Your task to perform on an android device: Find coffee shops on Maps Image 0: 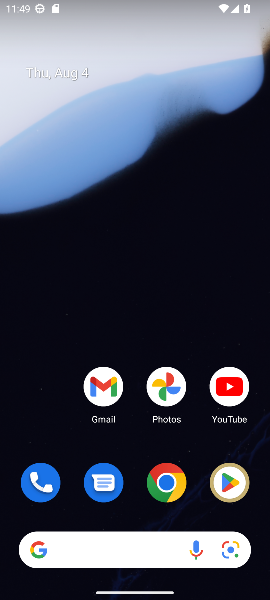
Step 0: drag from (138, 447) to (130, 111)
Your task to perform on an android device: Find coffee shops on Maps Image 1: 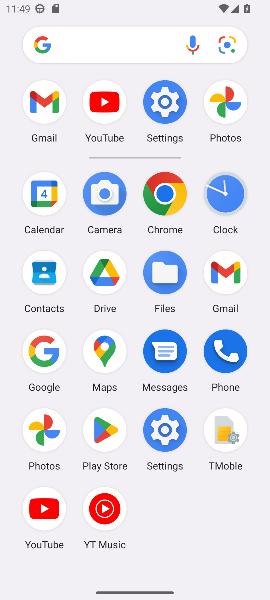
Step 1: click (102, 359)
Your task to perform on an android device: Find coffee shops on Maps Image 2: 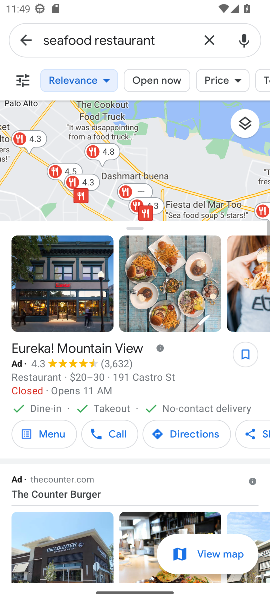
Step 2: click (205, 39)
Your task to perform on an android device: Find coffee shops on Maps Image 3: 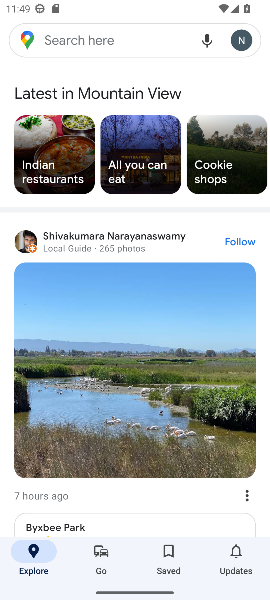
Step 3: type "coffee shops"
Your task to perform on an android device: Find coffee shops on Maps Image 4: 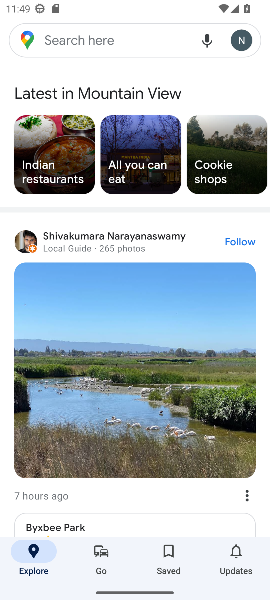
Step 4: type ""
Your task to perform on an android device: Find coffee shops on Maps Image 5: 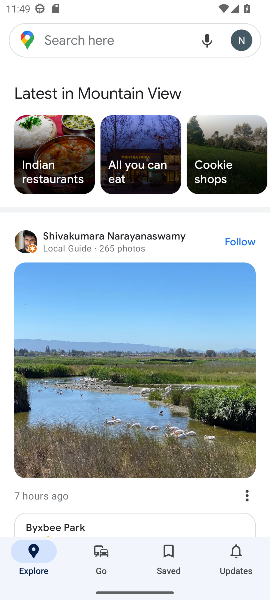
Step 5: click (87, 38)
Your task to perform on an android device: Find coffee shops on Maps Image 6: 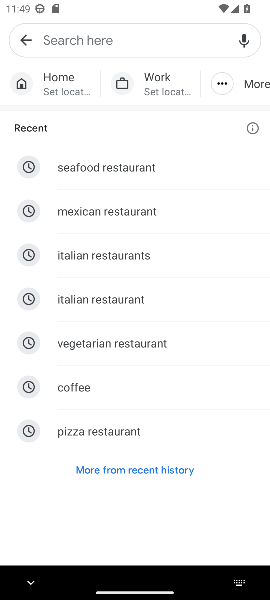
Step 6: type "coffee shops"
Your task to perform on an android device: Find coffee shops on Maps Image 7: 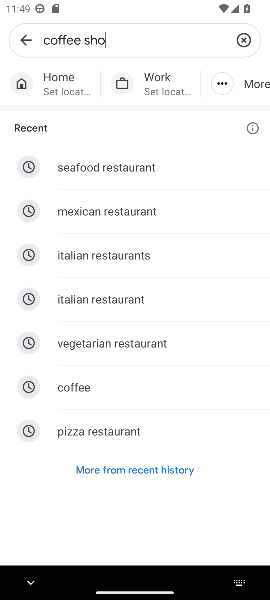
Step 7: type ""
Your task to perform on an android device: Find coffee shops on Maps Image 8: 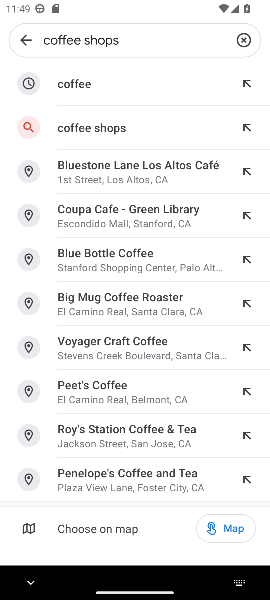
Step 8: click (143, 123)
Your task to perform on an android device: Find coffee shops on Maps Image 9: 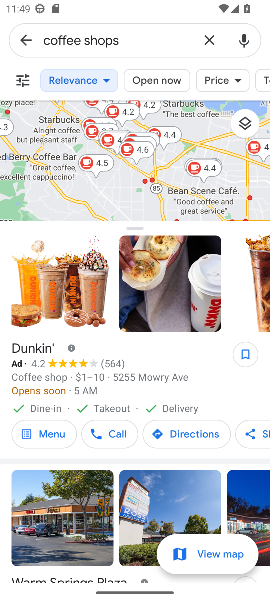
Step 9: task complete